Your task to perform on an android device: Go to Reddit.com Image 0: 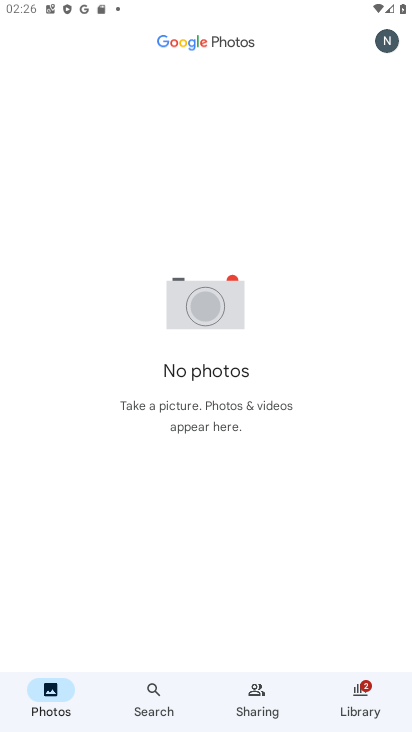
Step 0: press home button
Your task to perform on an android device: Go to Reddit.com Image 1: 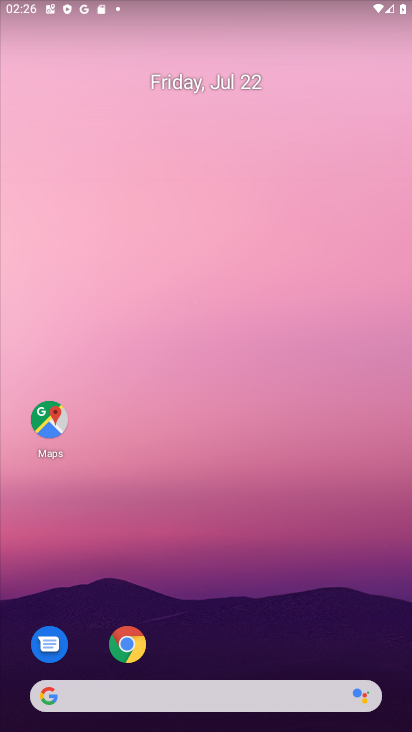
Step 1: click (162, 682)
Your task to perform on an android device: Go to Reddit.com Image 2: 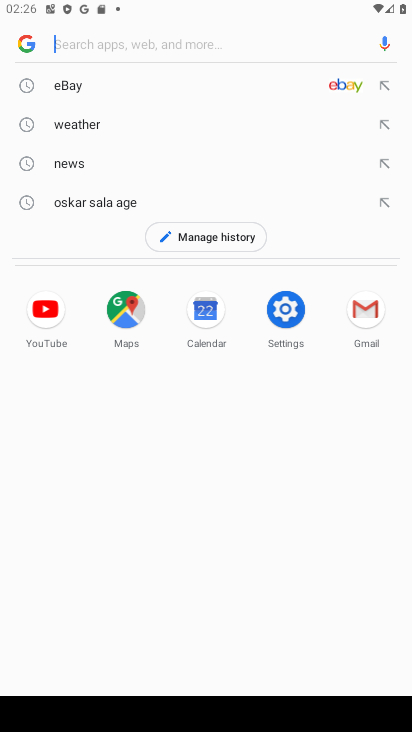
Step 2: type "reddit.com"
Your task to perform on an android device: Go to Reddit.com Image 3: 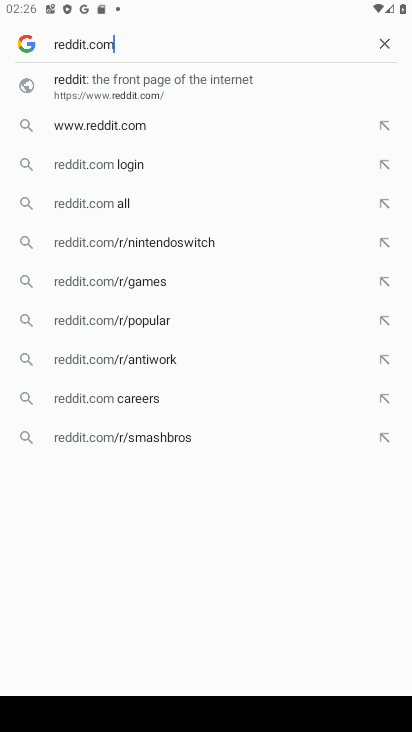
Step 3: click (212, 82)
Your task to perform on an android device: Go to Reddit.com Image 4: 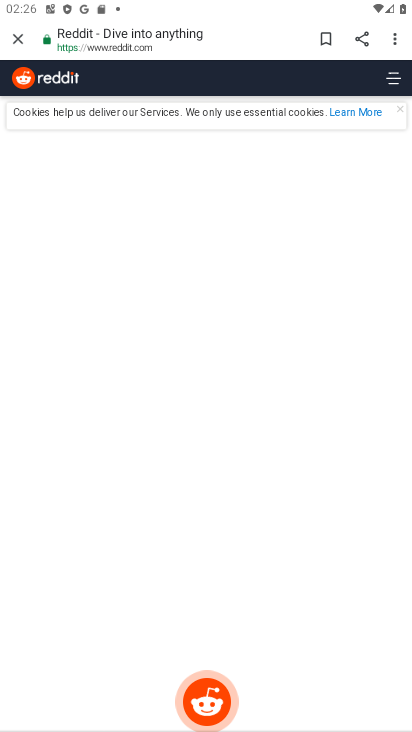
Step 4: task complete